Your task to perform on an android device: change the clock display to digital Image 0: 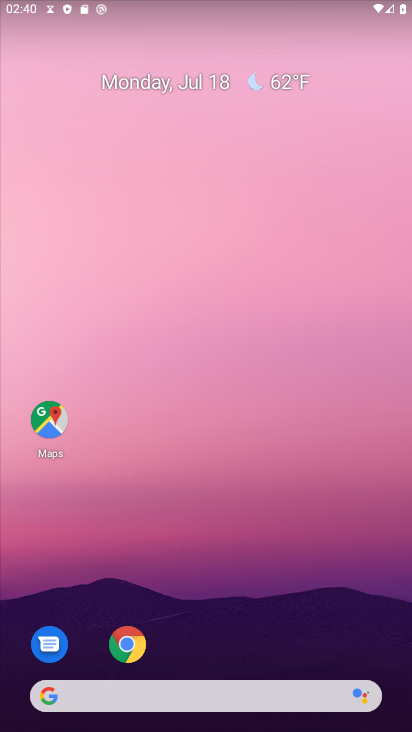
Step 0: drag from (265, 573) to (265, 195)
Your task to perform on an android device: change the clock display to digital Image 1: 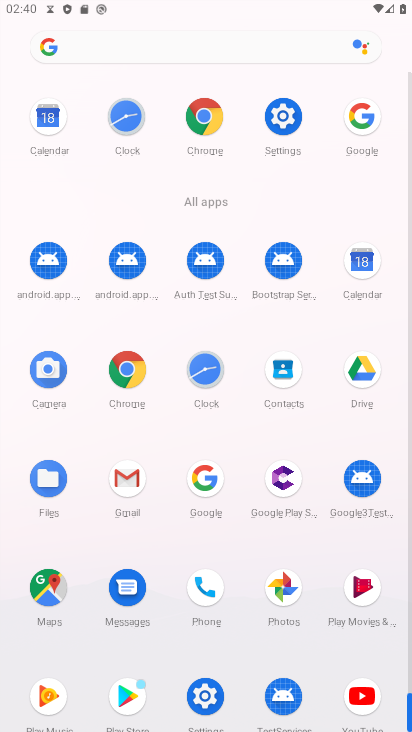
Step 1: click (193, 353)
Your task to perform on an android device: change the clock display to digital Image 2: 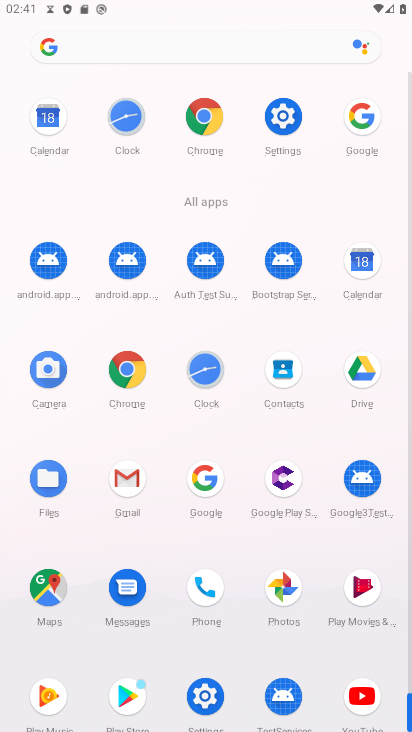
Step 2: click (205, 380)
Your task to perform on an android device: change the clock display to digital Image 3: 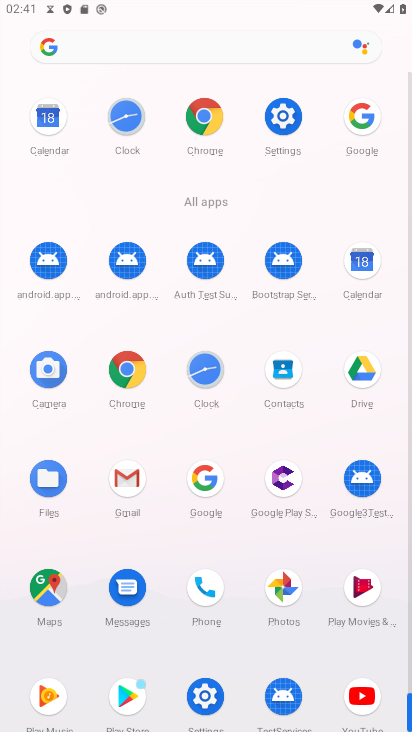
Step 3: click (206, 381)
Your task to perform on an android device: change the clock display to digital Image 4: 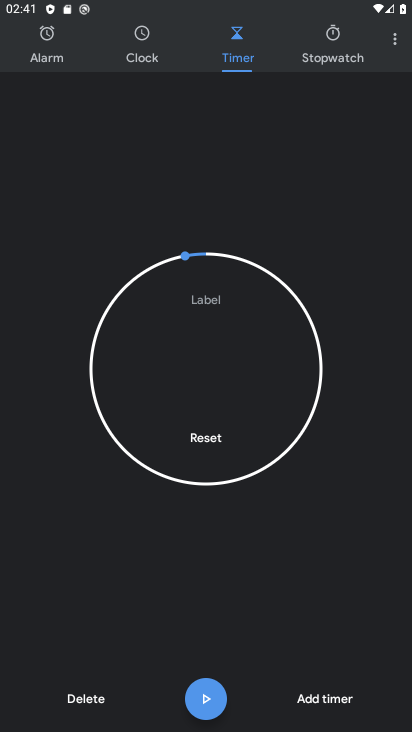
Step 4: drag from (401, 42) to (343, 196)
Your task to perform on an android device: change the clock display to digital Image 5: 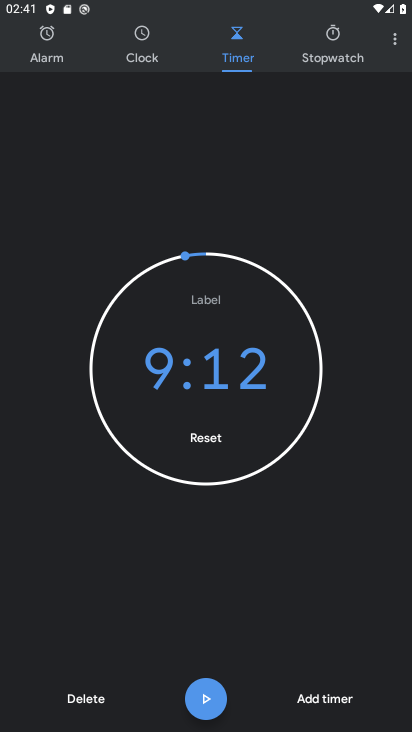
Step 5: click (382, 34)
Your task to perform on an android device: change the clock display to digital Image 6: 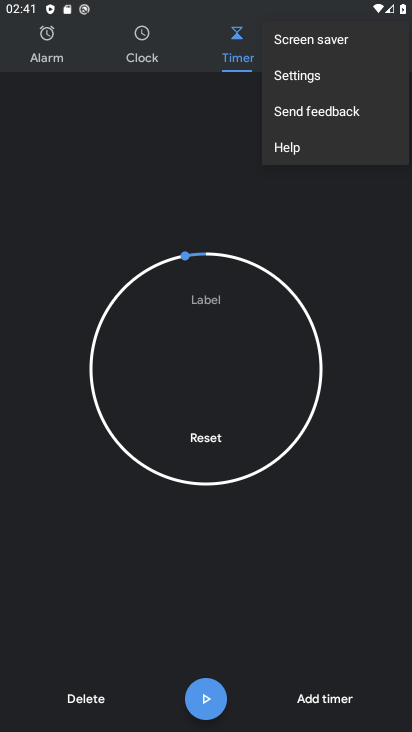
Step 6: click (300, 80)
Your task to perform on an android device: change the clock display to digital Image 7: 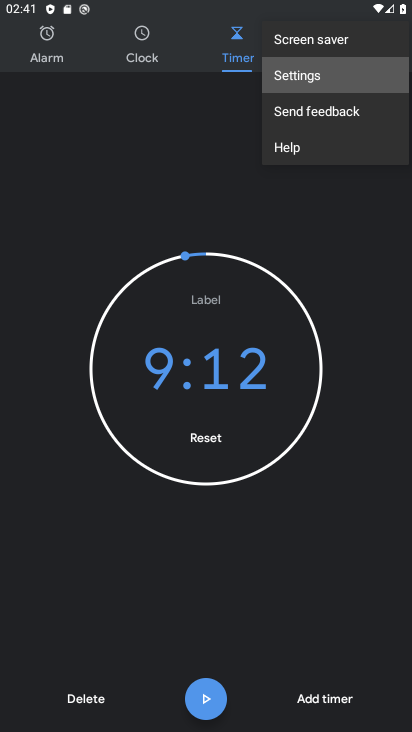
Step 7: click (303, 83)
Your task to perform on an android device: change the clock display to digital Image 8: 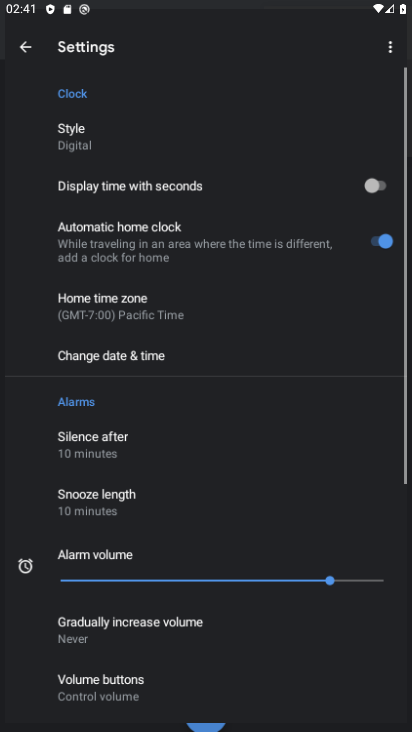
Step 8: click (305, 83)
Your task to perform on an android device: change the clock display to digital Image 9: 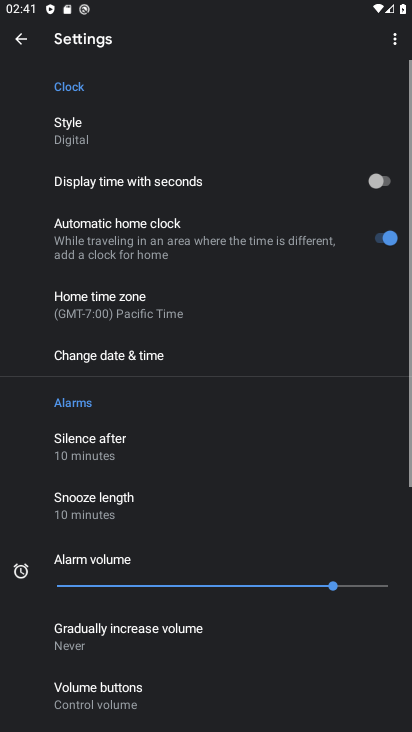
Step 9: click (305, 83)
Your task to perform on an android device: change the clock display to digital Image 10: 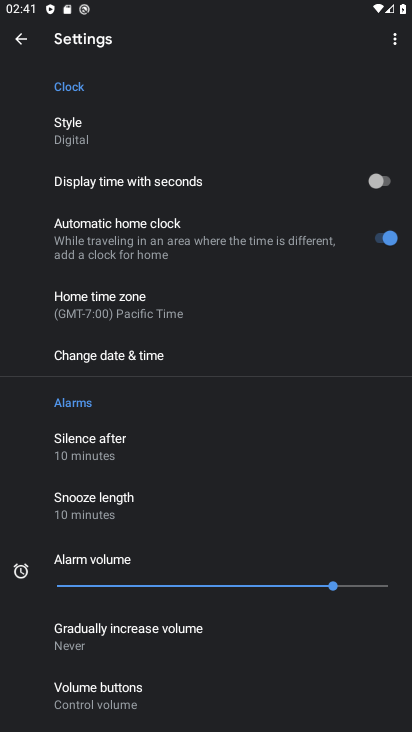
Step 10: click (373, 183)
Your task to perform on an android device: change the clock display to digital Image 11: 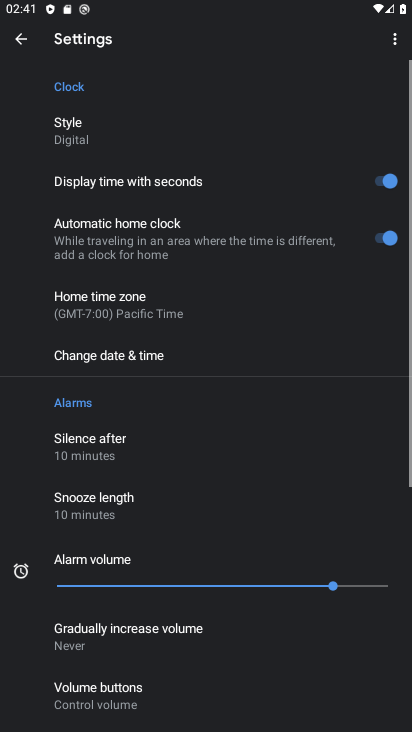
Step 11: click (369, 180)
Your task to perform on an android device: change the clock display to digital Image 12: 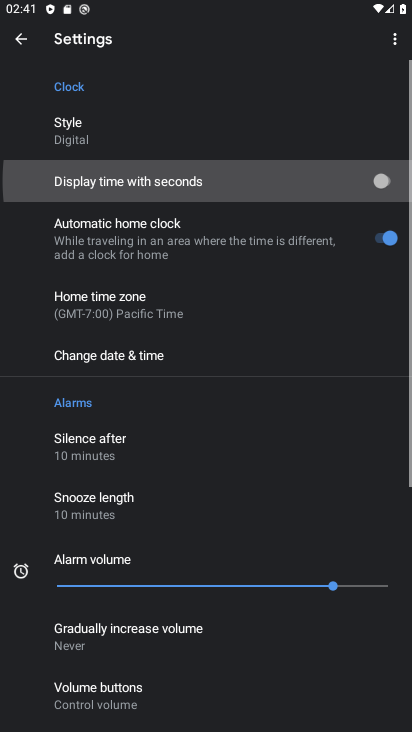
Step 12: click (400, 186)
Your task to perform on an android device: change the clock display to digital Image 13: 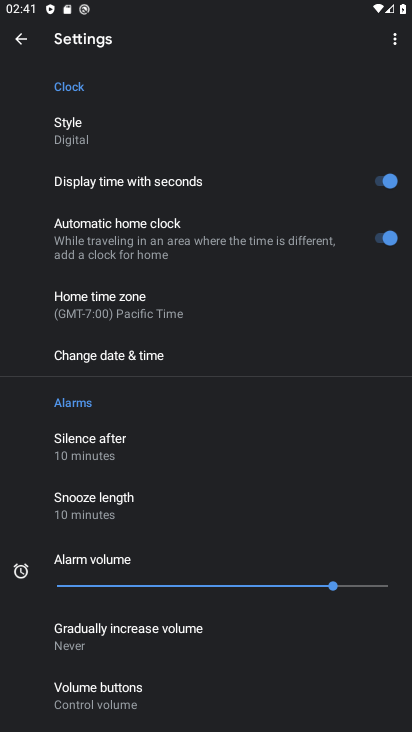
Step 13: click (82, 138)
Your task to perform on an android device: change the clock display to digital Image 14: 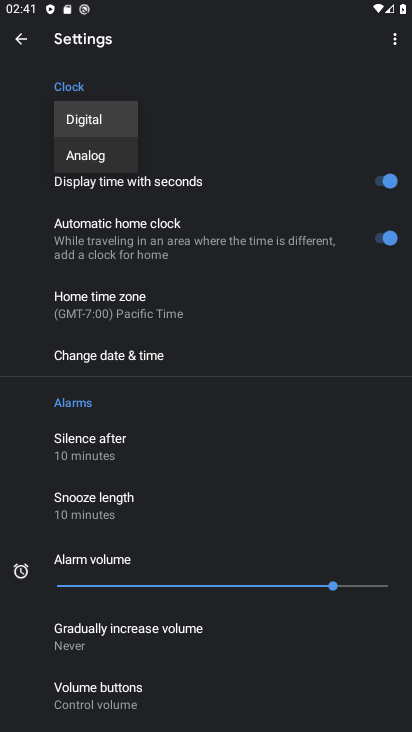
Step 14: click (383, 185)
Your task to perform on an android device: change the clock display to digital Image 15: 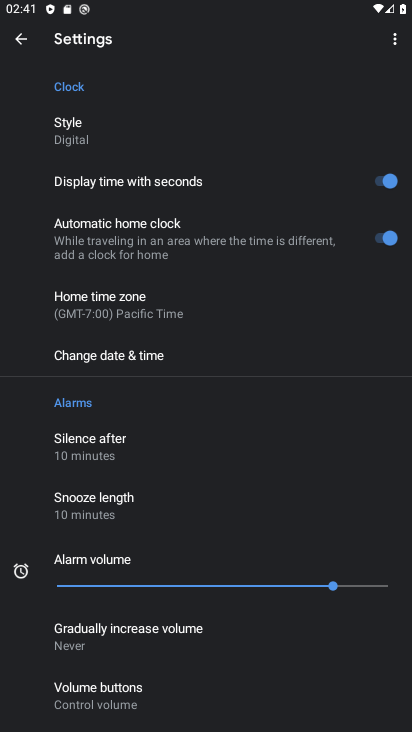
Step 15: click (387, 185)
Your task to perform on an android device: change the clock display to digital Image 16: 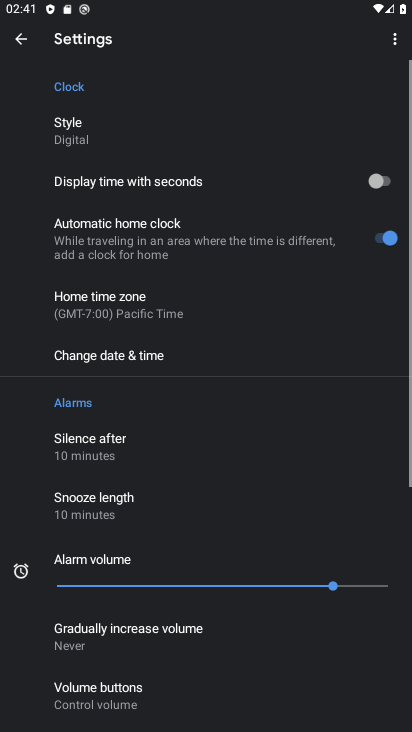
Step 16: click (107, 136)
Your task to perform on an android device: change the clock display to digital Image 17: 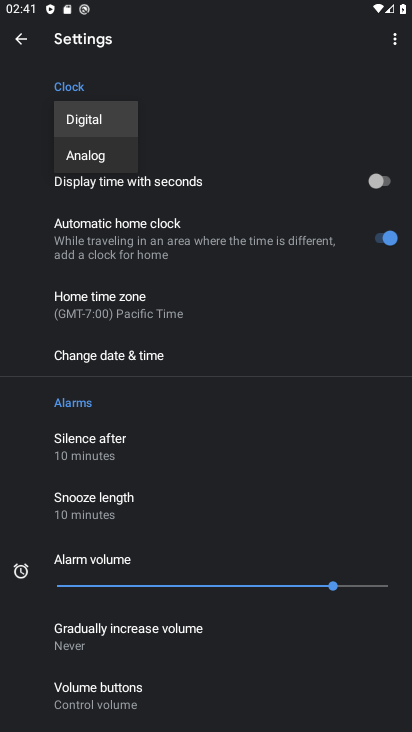
Step 17: click (85, 124)
Your task to perform on an android device: change the clock display to digital Image 18: 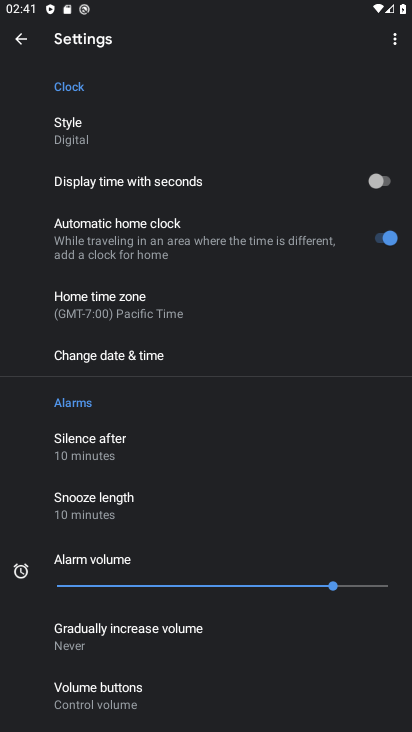
Step 18: task complete